Your task to perform on an android device: Go to Google Image 0: 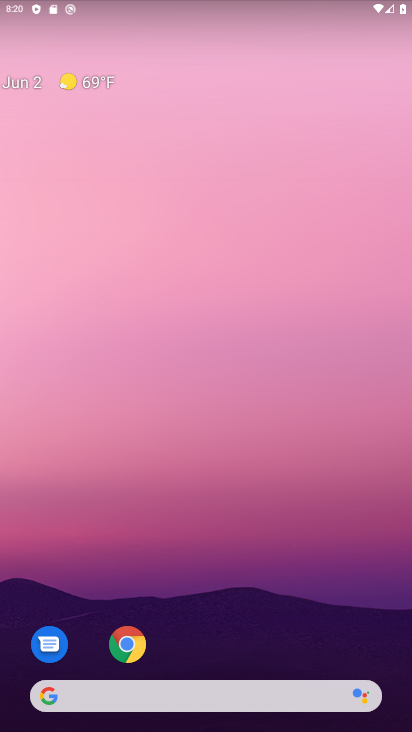
Step 0: drag from (218, 521) to (122, 39)
Your task to perform on an android device: Go to Google Image 1: 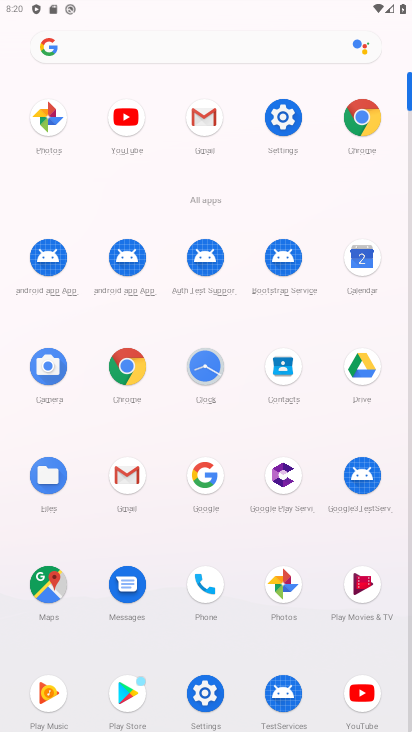
Step 1: click (126, 365)
Your task to perform on an android device: Go to Google Image 2: 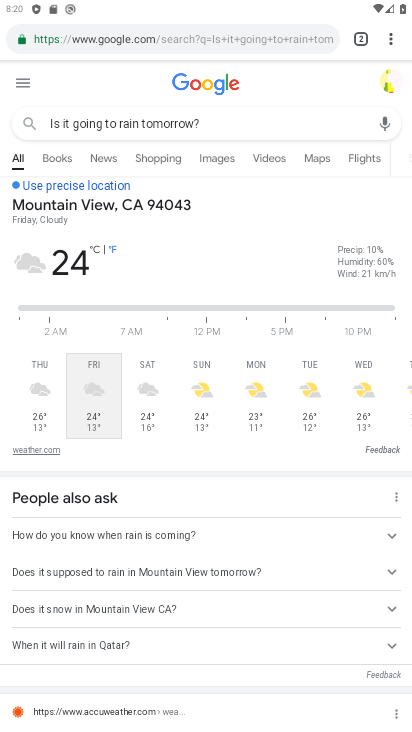
Step 2: click (145, 37)
Your task to perform on an android device: Go to Google Image 3: 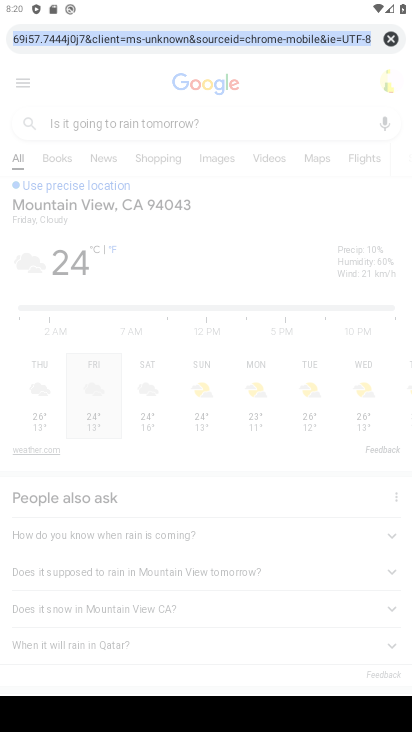
Step 3: click (391, 37)
Your task to perform on an android device: Go to Google Image 4: 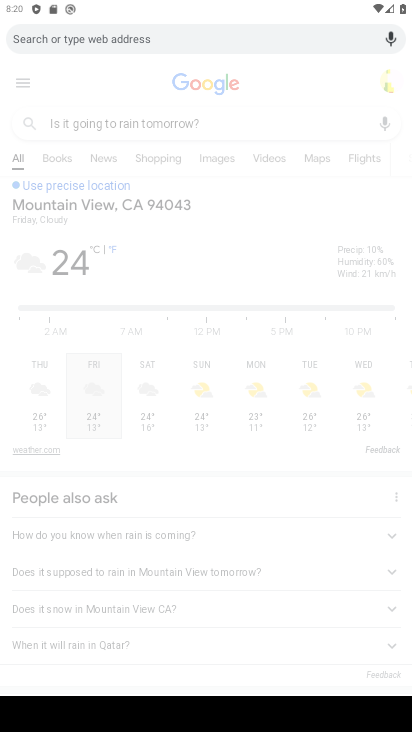
Step 4: type " Google"
Your task to perform on an android device: Go to Google Image 5: 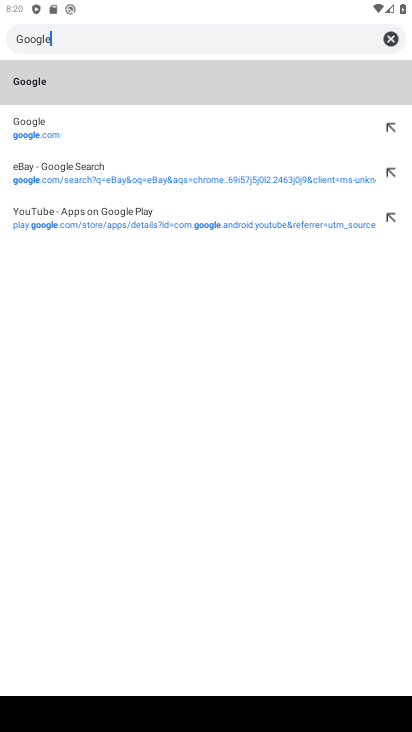
Step 5: click (22, 117)
Your task to perform on an android device: Go to Google Image 6: 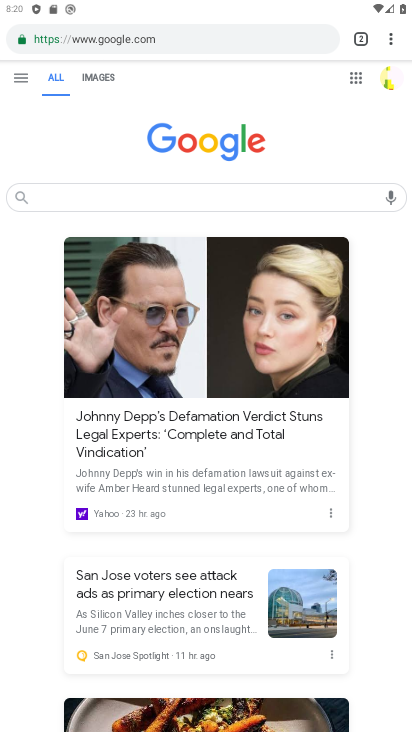
Step 6: task complete